Your task to perform on an android device: What's the weather going to be tomorrow? Image 0: 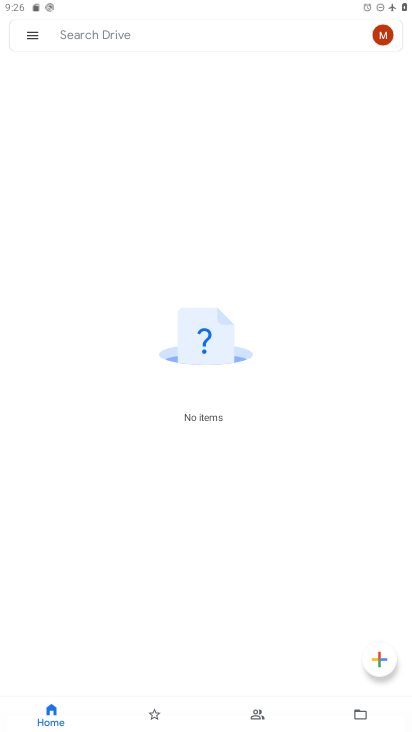
Step 0: press home button
Your task to perform on an android device: What's the weather going to be tomorrow? Image 1: 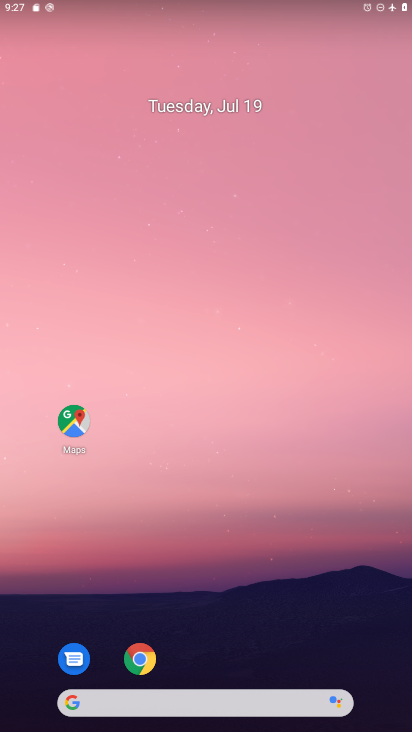
Step 1: drag from (263, 680) to (221, 137)
Your task to perform on an android device: What's the weather going to be tomorrow? Image 2: 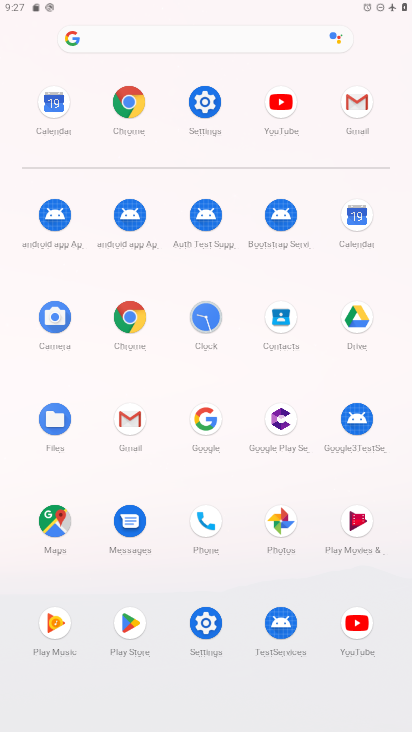
Step 2: click (132, 100)
Your task to perform on an android device: What's the weather going to be tomorrow? Image 3: 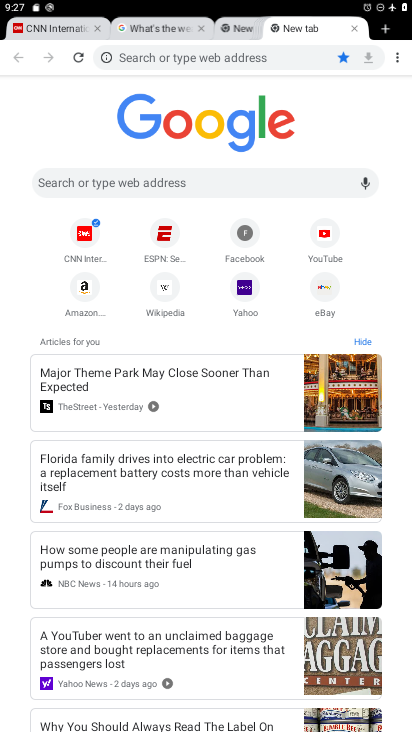
Step 3: click (140, 183)
Your task to perform on an android device: What's the weather going to be tomorrow? Image 4: 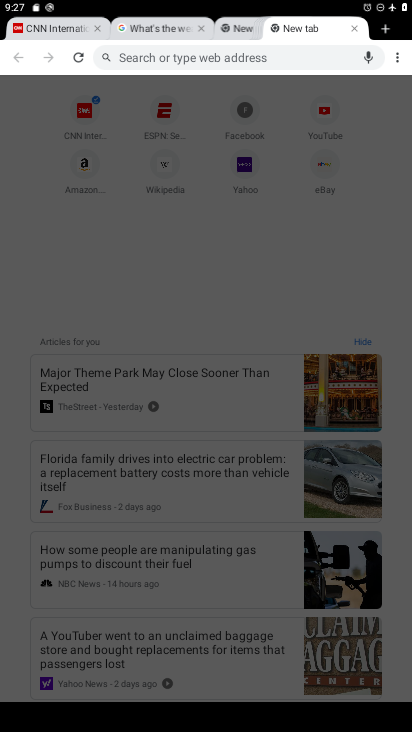
Step 4: type "What's the weather going to be tomorrow "
Your task to perform on an android device: What's the weather going to be tomorrow? Image 5: 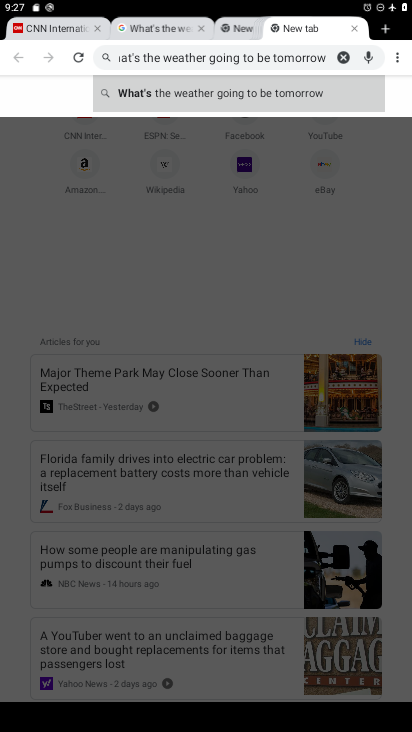
Step 5: click (261, 92)
Your task to perform on an android device: What's the weather going to be tomorrow? Image 6: 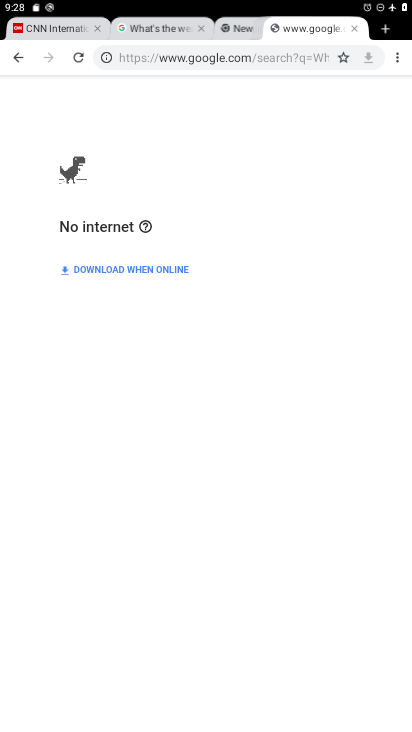
Step 6: task complete